Your task to perform on an android device: What's on my calendar today? Image 0: 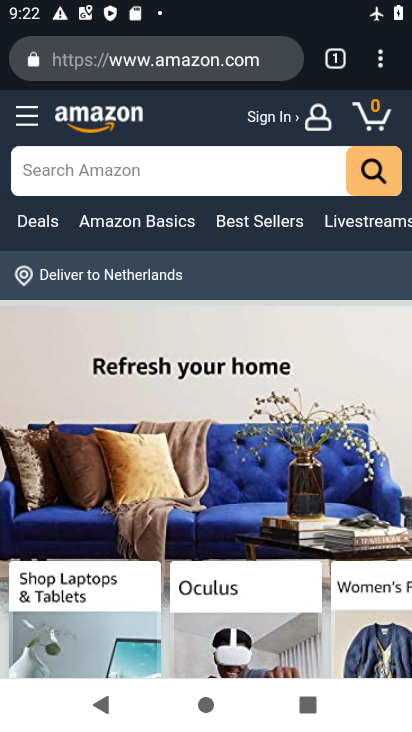
Step 0: press home button
Your task to perform on an android device: What's on my calendar today? Image 1: 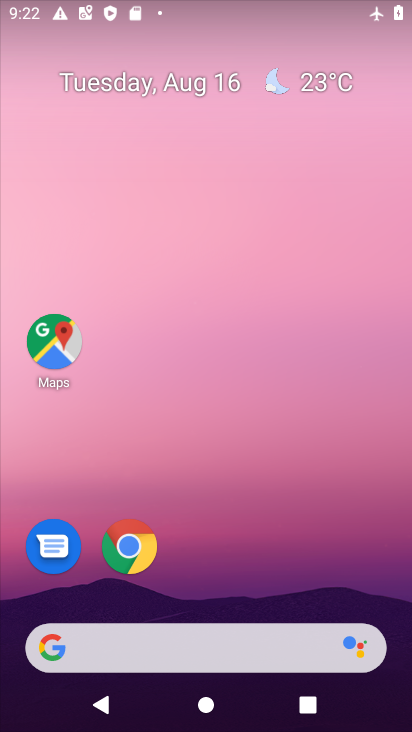
Step 1: drag from (248, 184) to (264, 0)
Your task to perform on an android device: What's on my calendar today? Image 2: 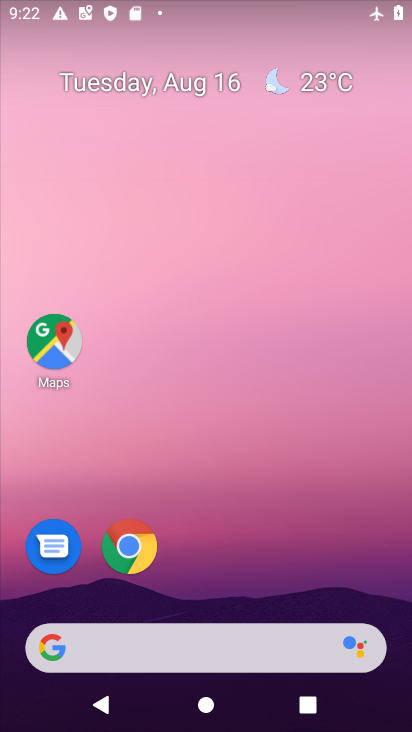
Step 2: drag from (209, 559) to (224, 0)
Your task to perform on an android device: What's on my calendar today? Image 3: 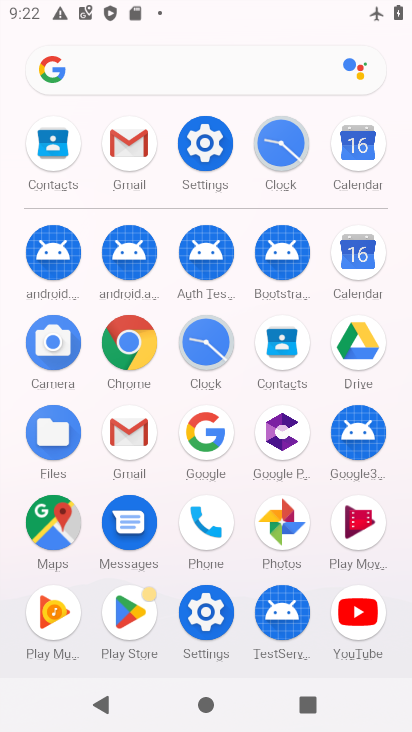
Step 3: click (361, 144)
Your task to perform on an android device: What's on my calendar today? Image 4: 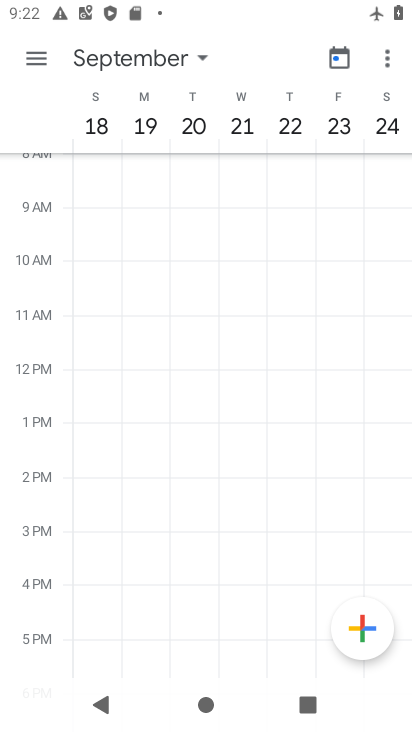
Step 4: drag from (110, 276) to (387, 342)
Your task to perform on an android device: What's on my calendar today? Image 5: 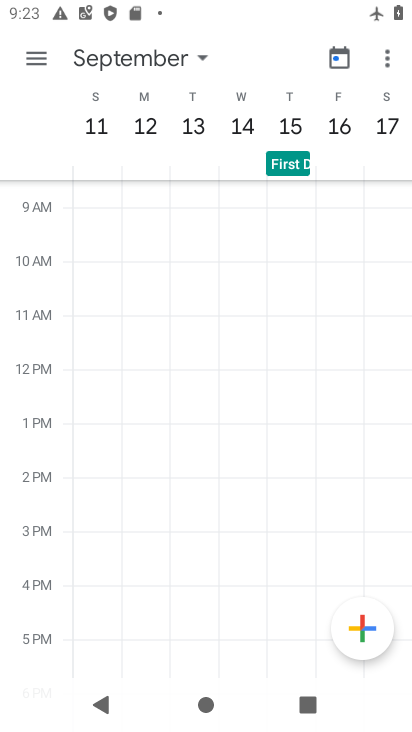
Step 5: drag from (88, 267) to (409, 327)
Your task to perform on an android device: What's on my calendar today? Image 6: 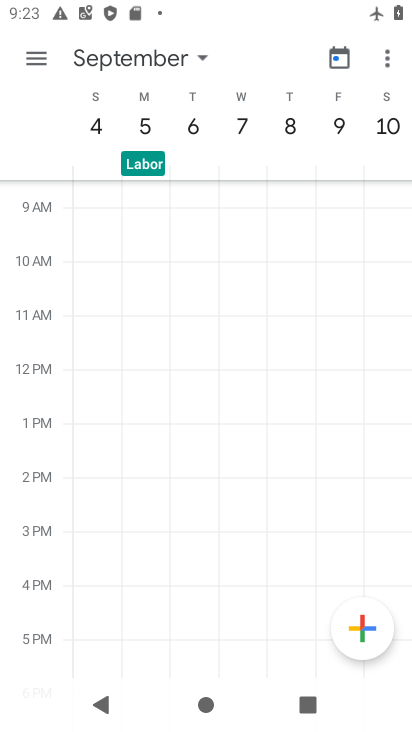
Step 6: drag from (103, 271) to (408, 325)
Your task to perform on an android device: What's on my calendar today? Image 7: 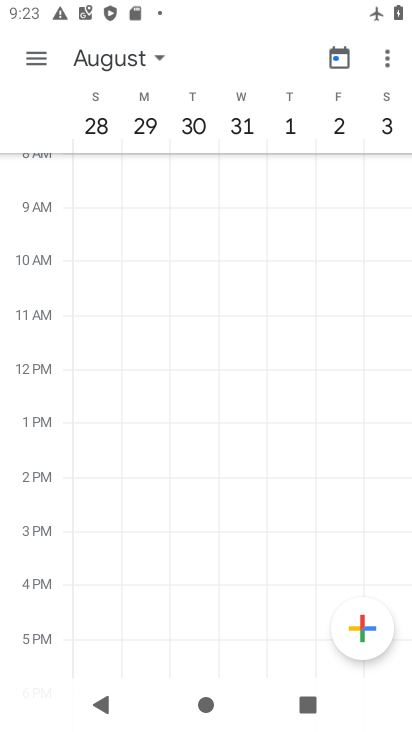
Step 7: drag from (88, 278) to (405, 327)
Your task to perform on an android device: What's on my calendar today? Image 8: 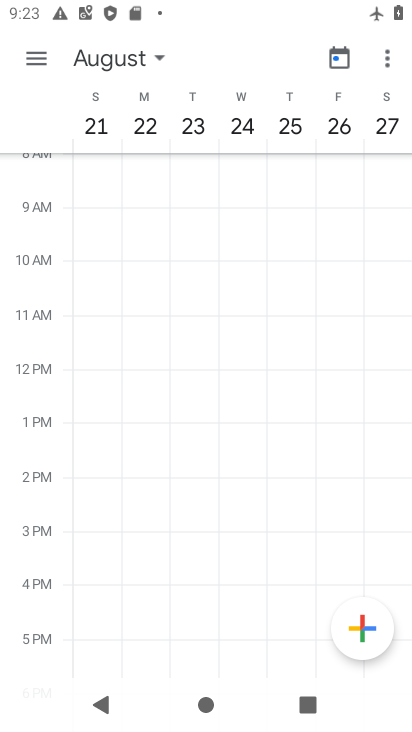
Step 8: drag from (79, 277) to (407, 316)
Your task to perform on an android device: What's on my calendar today? Image 9: 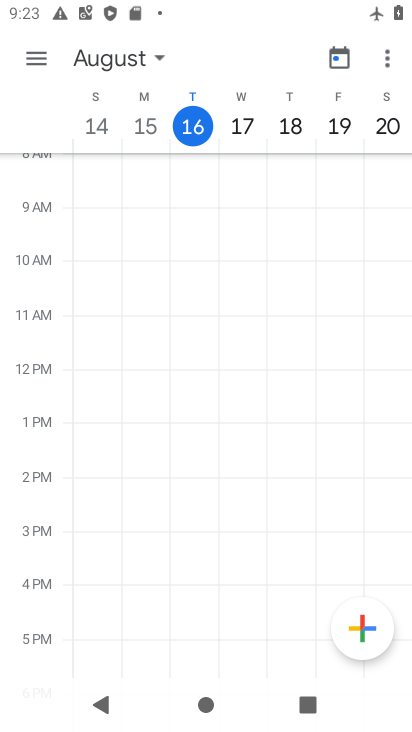
Step 9: click (190, 129)
Your task to perform on an android device: What's on my calendar today? Image 10: 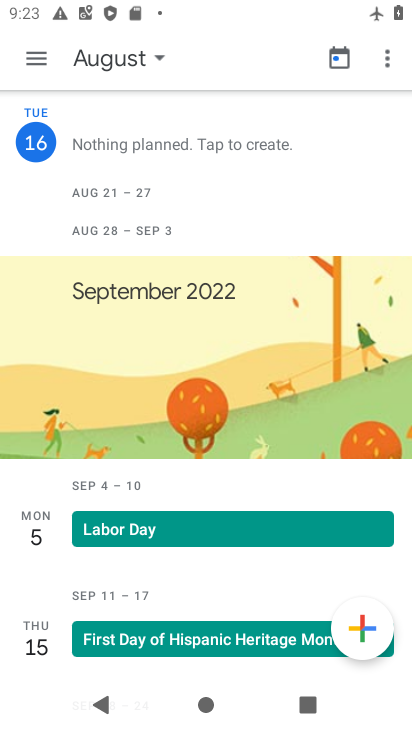
Step 10: task complete